Your task to perform on an android device: manage bookmarks in the chrome app Image 0: 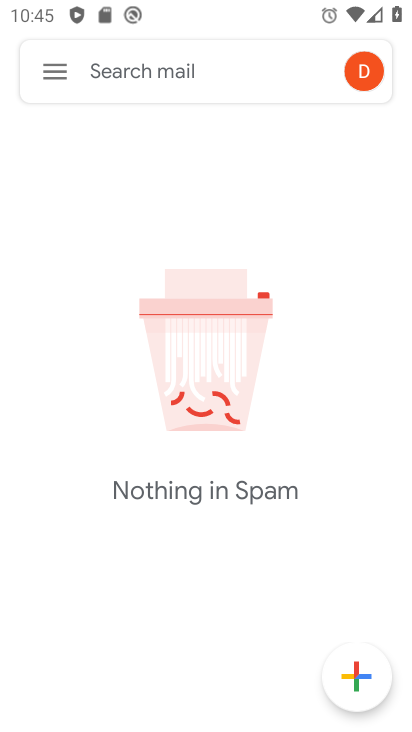
Step 0: press home button
Your task to perform on an android device: manage bookmarks in the chrome app Image 1: 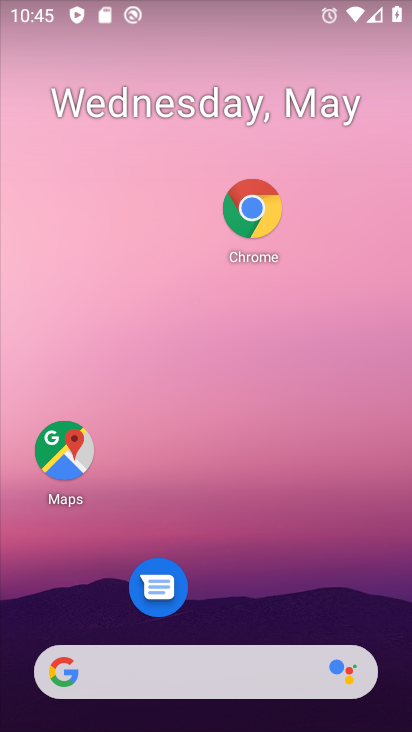
Step 1: click (261, 208)
Your task to perform on an android device: manage bookmarks in the chrome app Image 2: 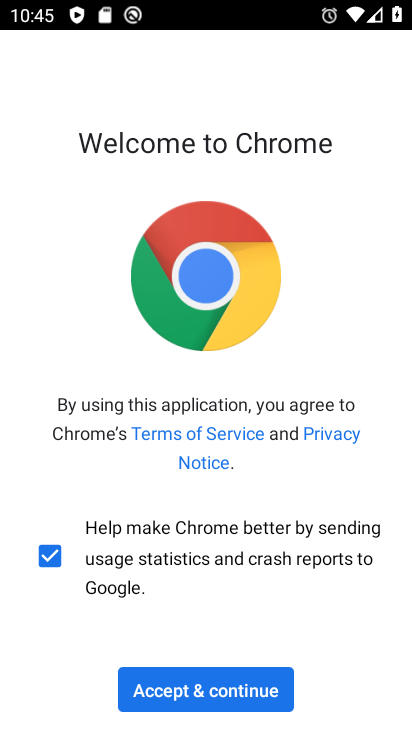
Step 2: click (153, 694)
Your task to perform on an android device: manage bookmarks in the chrome app Image 3: 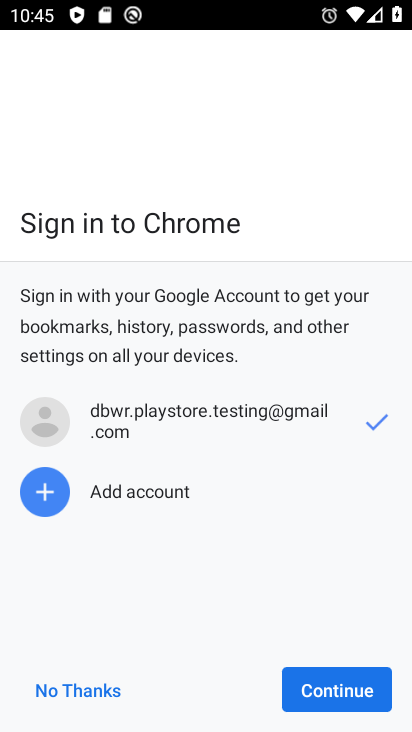
Step 3: click (358, 690)
Your task to perform on an android device: manage bookmarks in the chrome app Image 4: 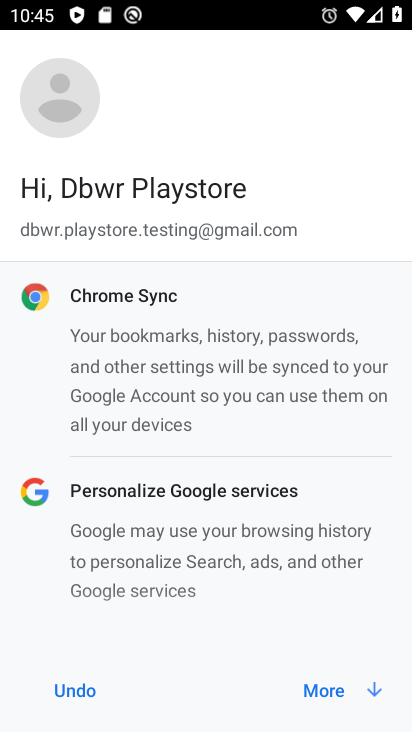
Step 4: click (326, 690)
Your task to perform on an android device: manage bookmarks in the chrome app Image 5: 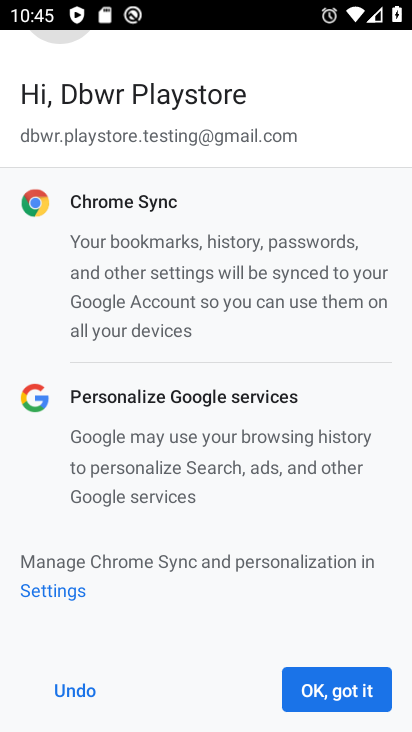
Step 5: click (326, 690)
Your task to perform on an android device: manage bookmarks in the chrome app Image 6: 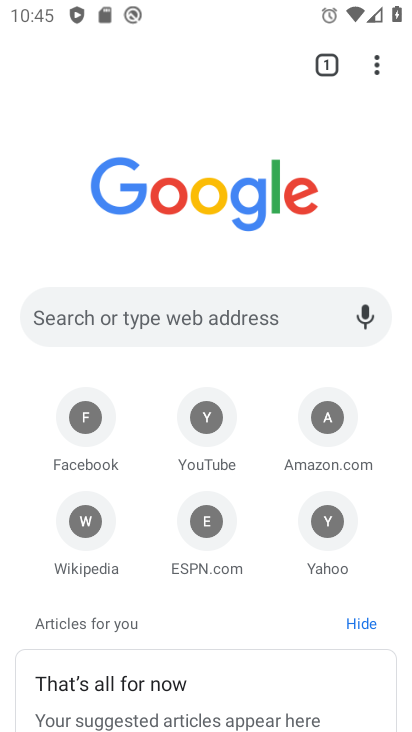
Step 6: click (381, 64)
Your task to perform on an android device: manage bookmarks in the chrome app Image 7: 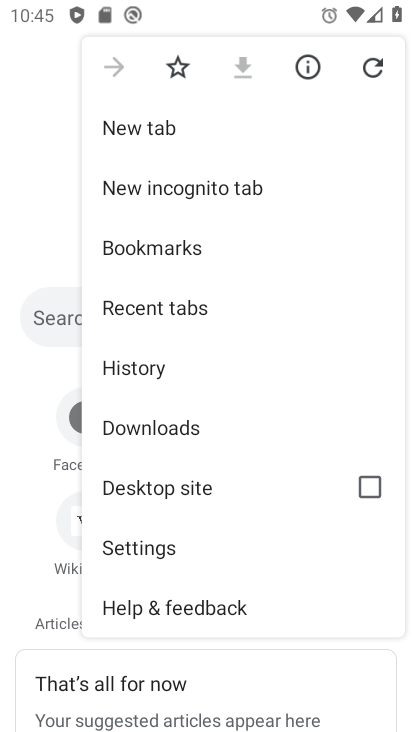
Step 7: click (158, 253)
Your task to perform on an android device: manage bookmarks in the chrome app Image 8: 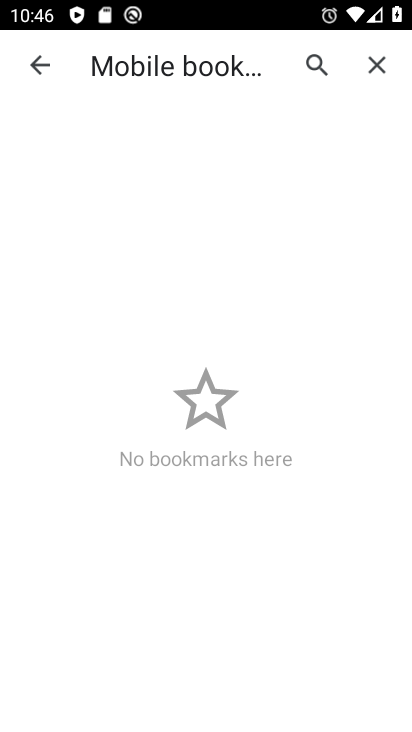
Step 8: task complete